Your task to perform on an android device: Open Yahoo.com Image 0: 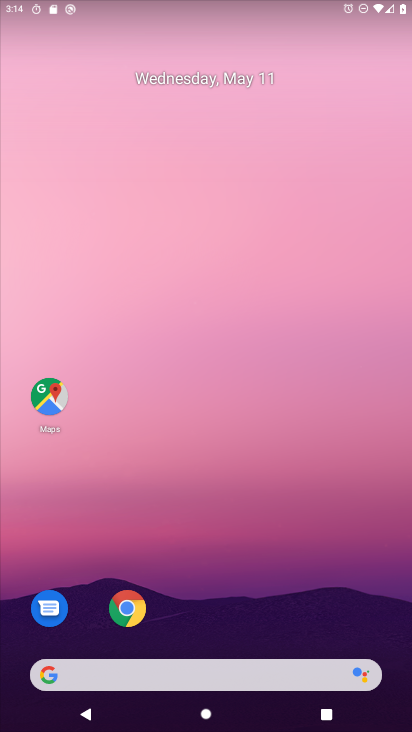
Step 0: drag from (218, 580) to (279, 204)
Your task to perform on an android device: Open Yahoo.com Image 1: 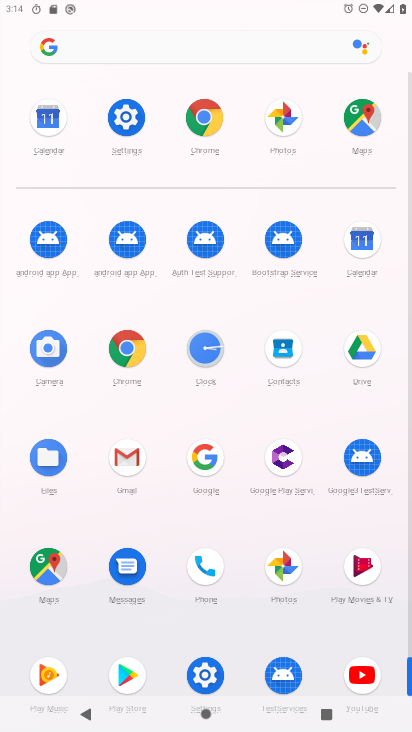
Step 1: click (218, 142)
Your task to perform on an android device: Open Yahoo.com Image 2: 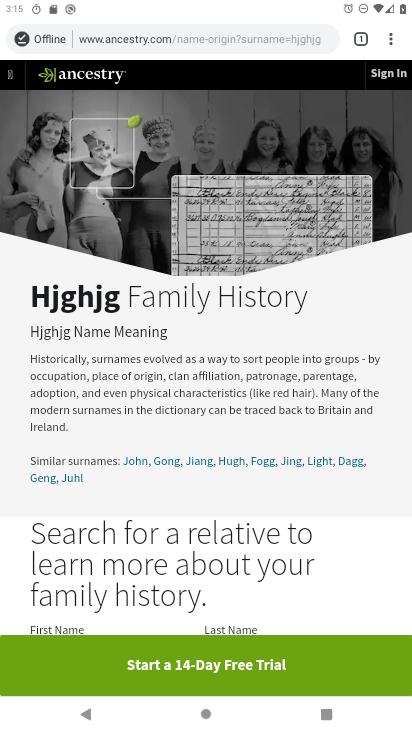
Step 2: click (329, 42)
Your task to perform on an android device: Open Yahoo.com Image 3: 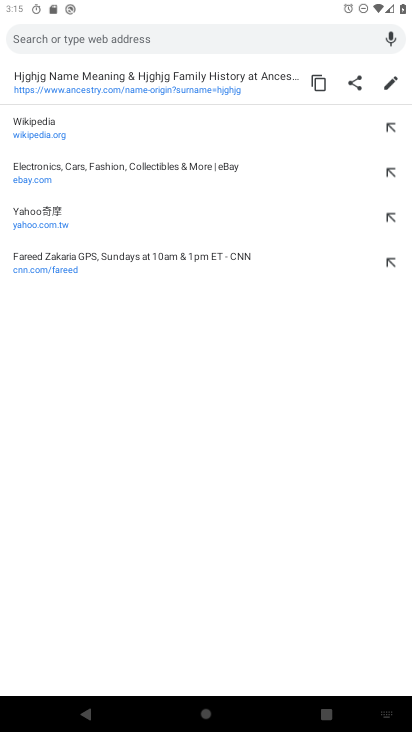
Step 3: type "yahoo.com"
Your task to perform on an android device: Open Yahoo.com Image 4: 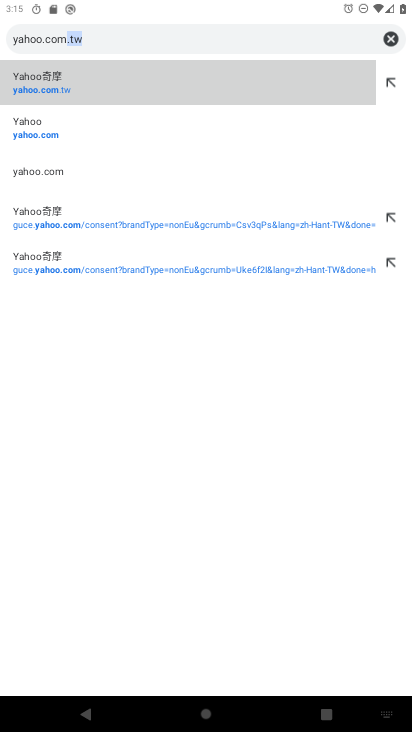
Step 4: click (113, 87)
Your task to perform on an android device: Open Yahoo.com Image 5: 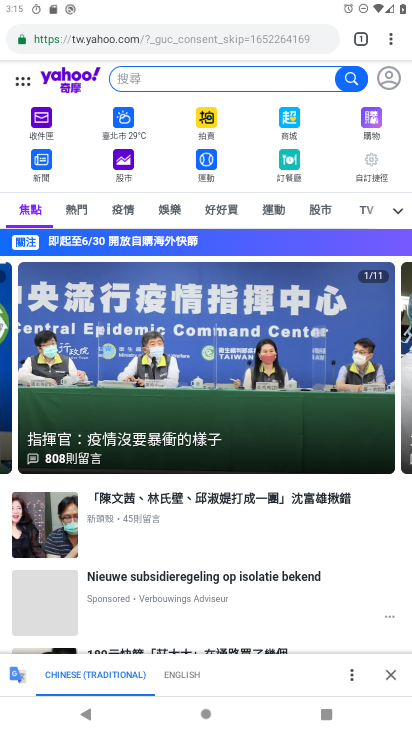
Step 5: task complete